Your task to perform on an android device: open app "Pinterest" (install if not already installed) Image 0: 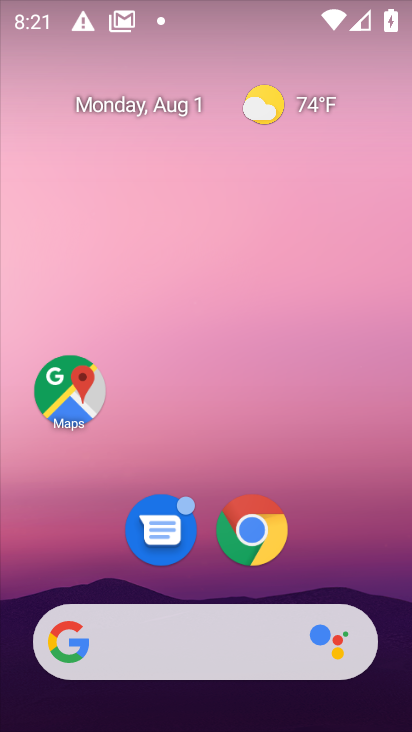
Step 0: drag from (319, 503) to (280, 13)
Your task to perform on an android device: open app "Pinterest" (install if not already installed) Image 1: 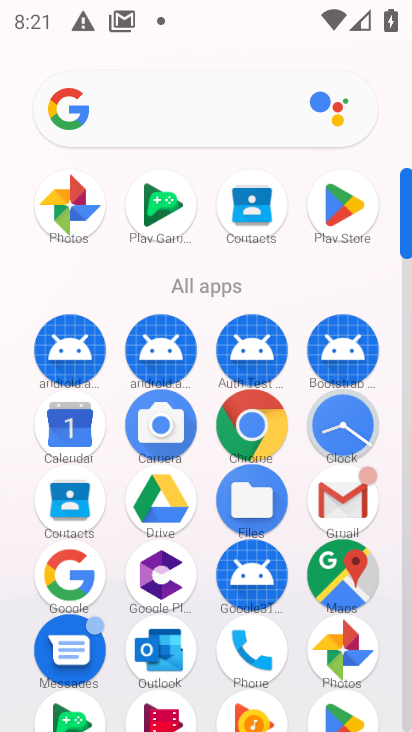
Step 1: click (356, 198)
Your task to perform on an android device: open app "Pinterest" (install if not already installed) Image 2: 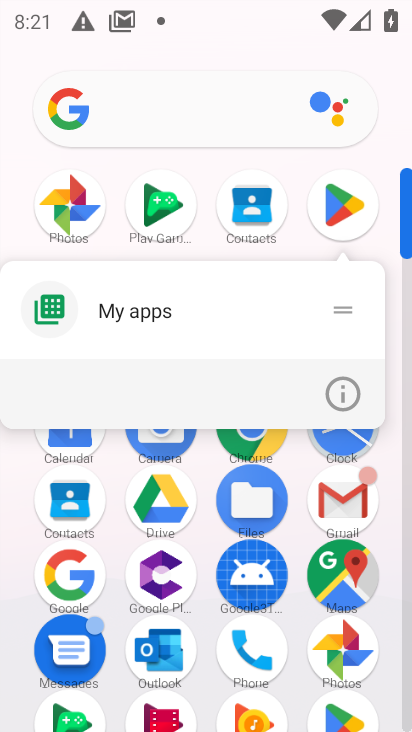
Step 2: click (326, 204)
Your task to perform on an android device: open app "Pinterest" (install if not already installed) Image 3: 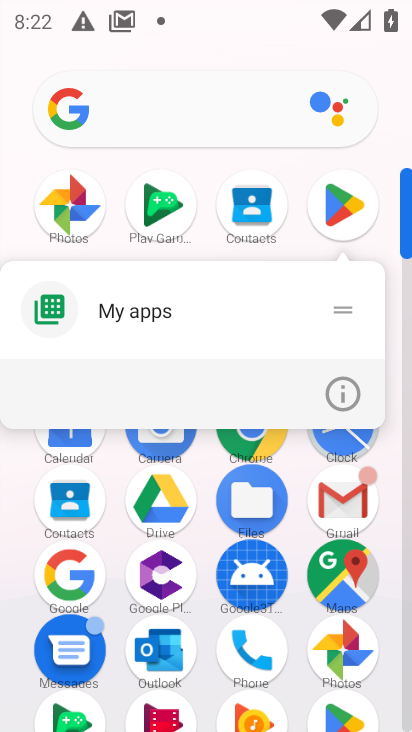
Step 3: click (336, 210)
Your task to perform on an android device: open app "Pinterest" (install if not already installed) Image 4: 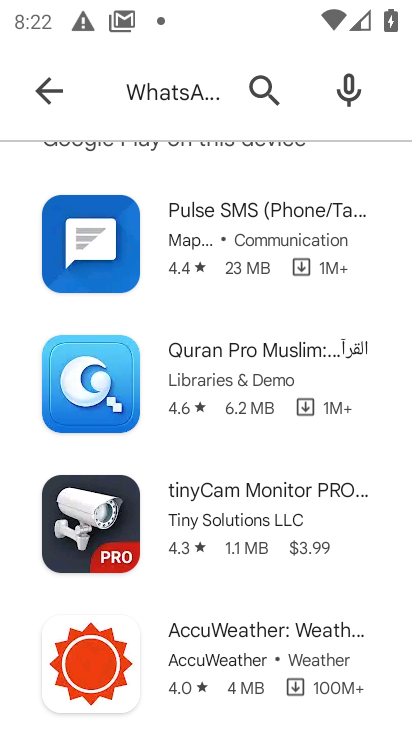
Step 4: click (62, 79)
Your task to perform on an android device: open app "Pinterest" (install if not already installed) Image 5: 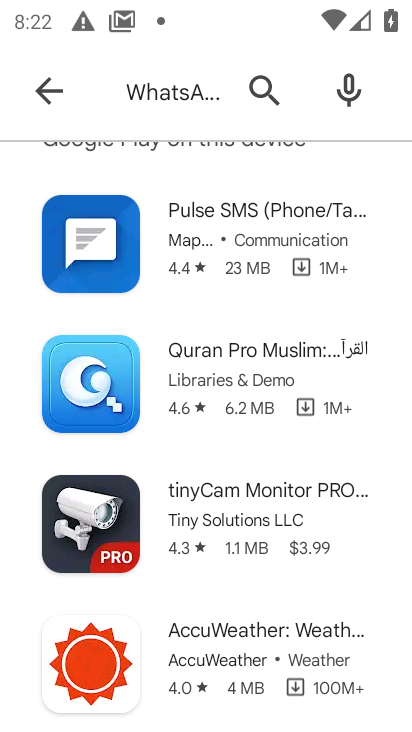
Step 5: click (54, 76)
Your task to perform on an android device: open app "Pinterest" (install if not already installed) Image 6: 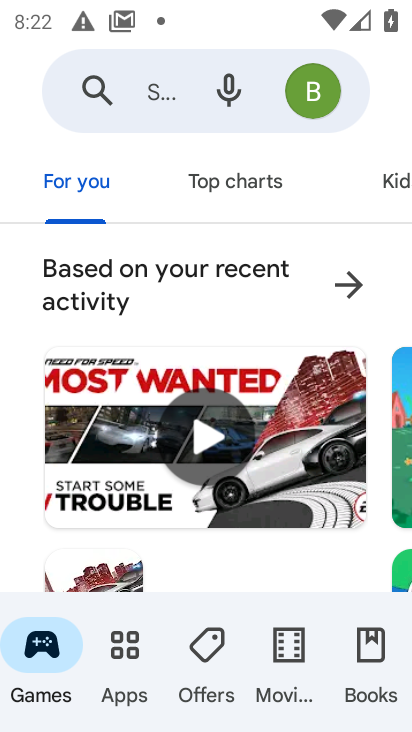
Step 6: click (161, 76)
Your task to perform on an android device: open app "Pinterest" (install if not already installed) Image 7: 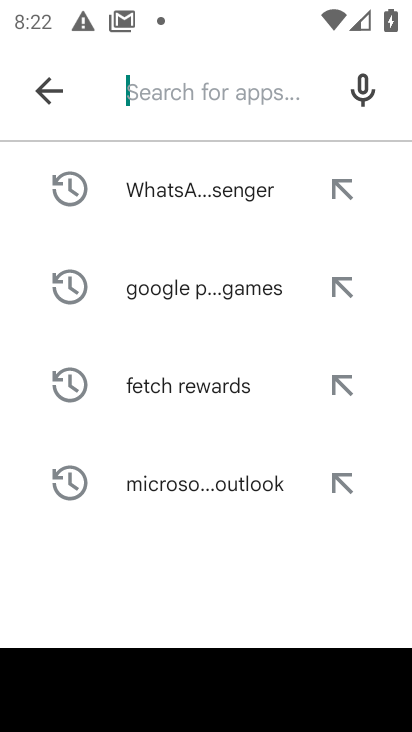
Step 7: type "Pinterest"
Your task to perform on an android device: open app "Pinterest" (install if not already installed) Image 8: 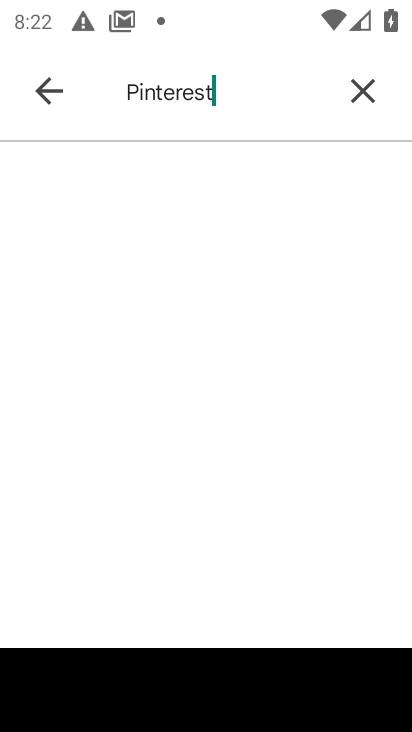
Step 8: press enter
Your task to perform on an android device: open app "Pinterest" (install if not already installed) Image 9: 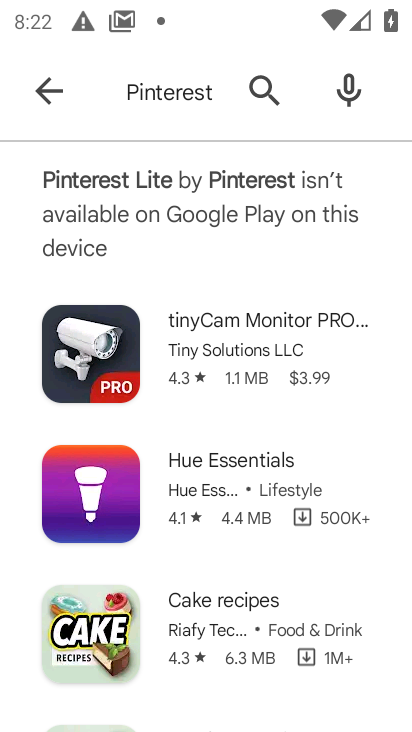
Step 9: task complete